Your task to perform on an android device: What's on my calendar tomorrow? Image 0: 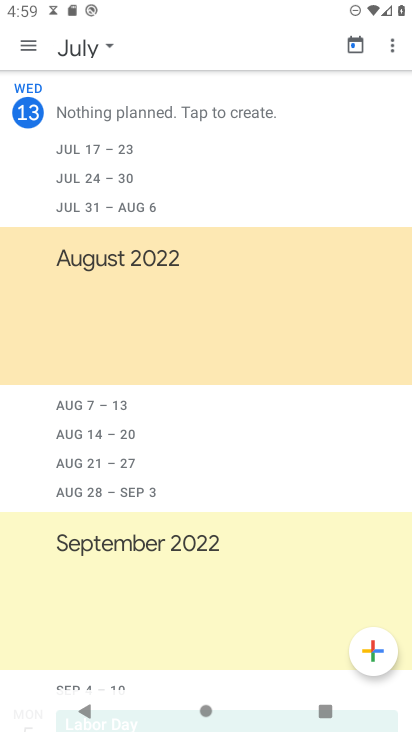
Step 0: click (115, 41)
Your task to perform on an android device: What's on my calendar tomorrow? Image 1: 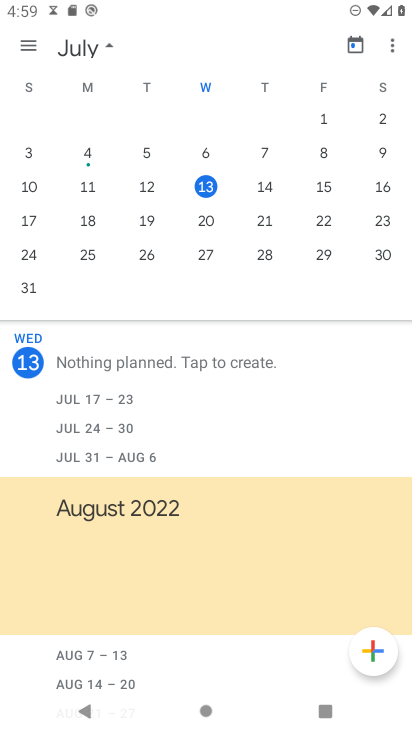
Step 1: click (266, 189)
Your task to perform on an android device: What's on my calendar tomorrow? Image 2: 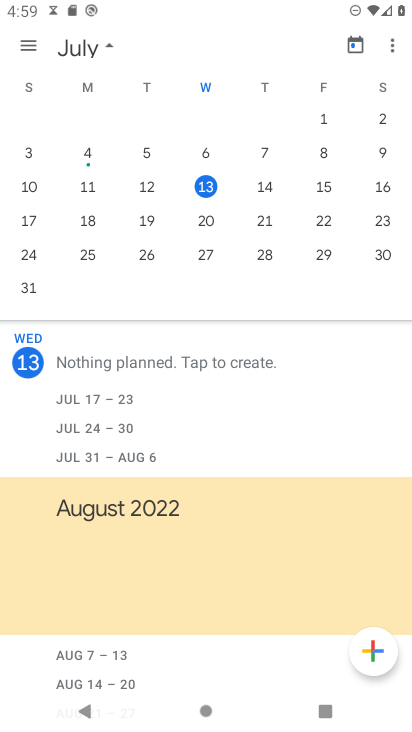
Step 2: click (267, 194)
Your task to perform on an android device: What's on my calendar tomorrow? Image 3: 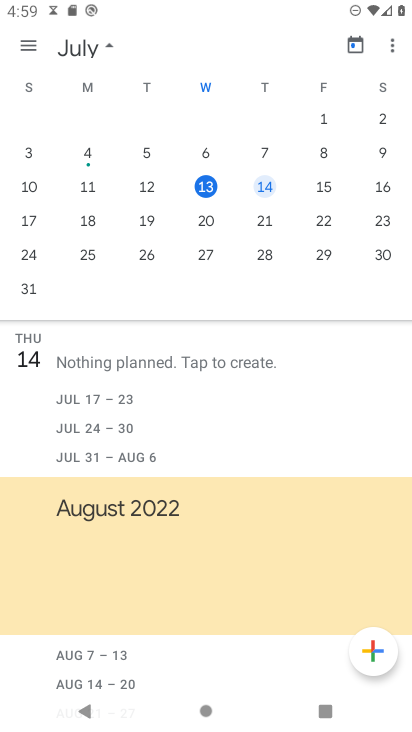
Step 3: task complete